Your task to perform on an android device: toggle notification dots Image 0: 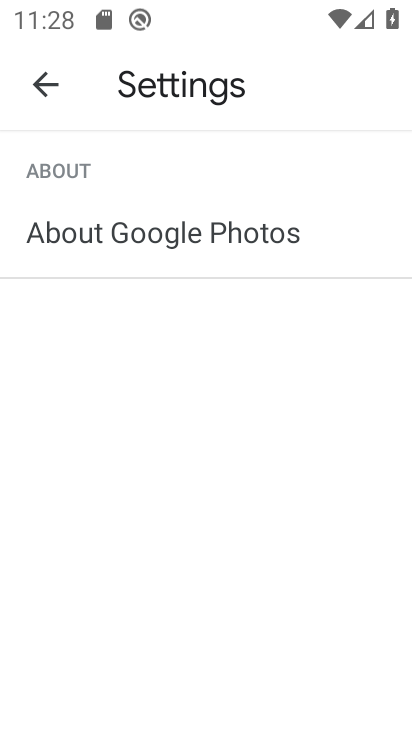
Step 0: press home button
Your task to perform on an android device: toggle notification dots Image 1: 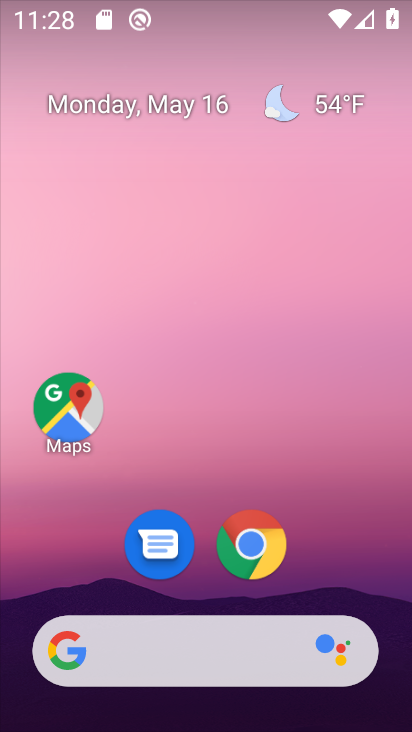
Step 1: drag from (392, 274) to (382, 197)
Your task to perform on an android device: toggle notification dots Image 2: 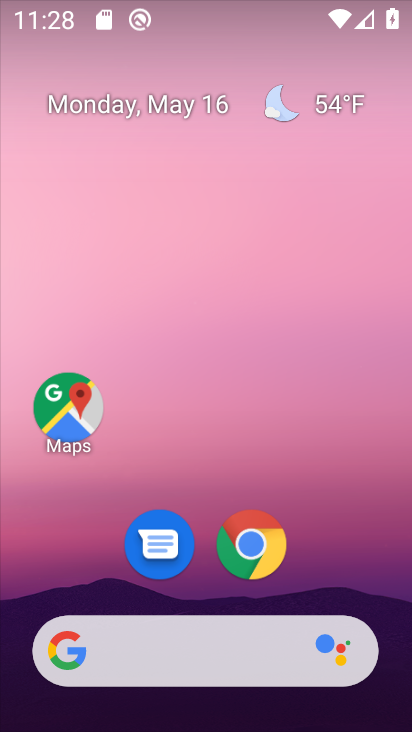
Step 2: drag from (404, 636) to (410, 186)
Your task to perform on an android device: toggle notification dots Image 3: 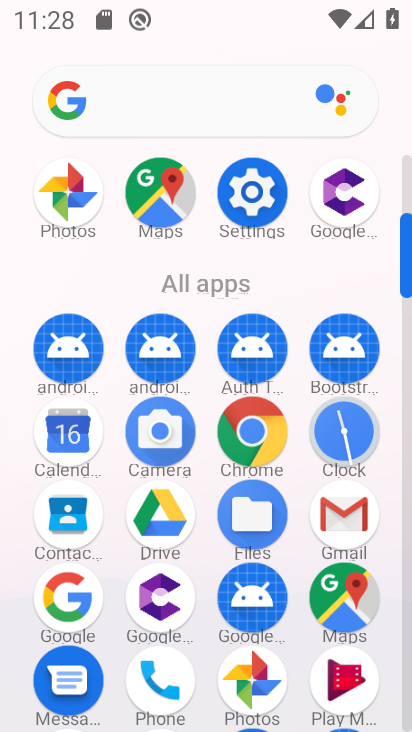
Step 3: click (241, 196)
Your task to perform on an android device: toggle notification dots Image 4: 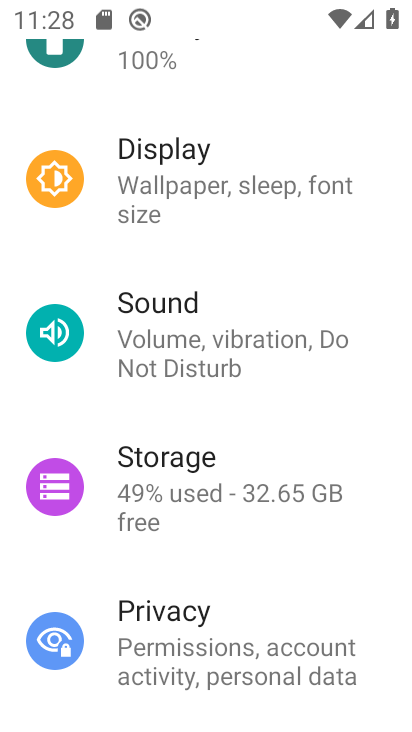
Step 4: drag from (318, 207) to (330, 445)
Your task to perform on an android device: toggle notification dots Image 5: 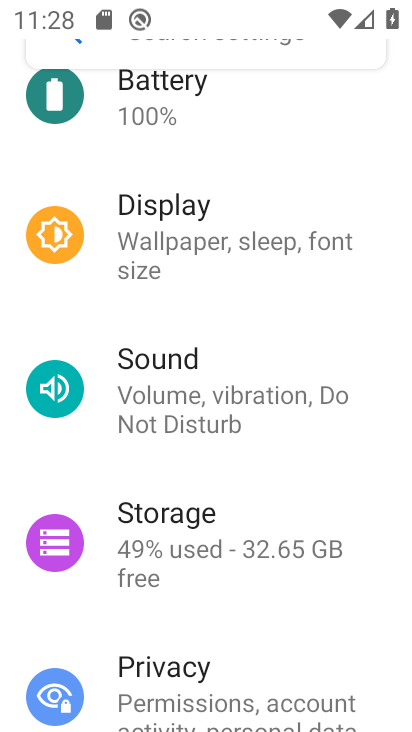
Step 5: drag from (248, 121) to (275, 425)
Your task to perform on an android device: toggle notification dots Image 6: 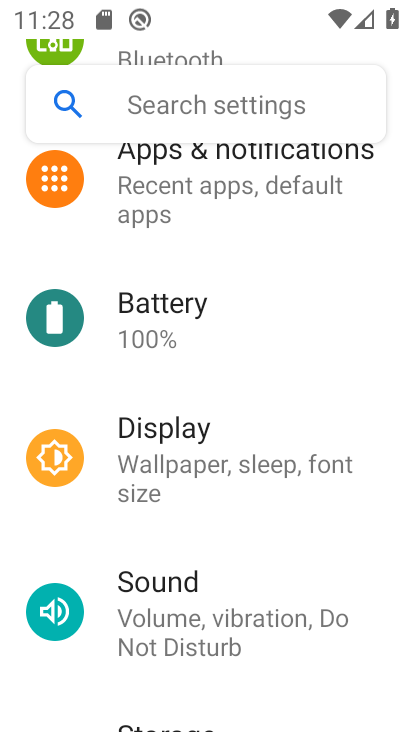
Step 6: click (159, 175)
Your task to perform on an android device: toggle notification dots Image 7: 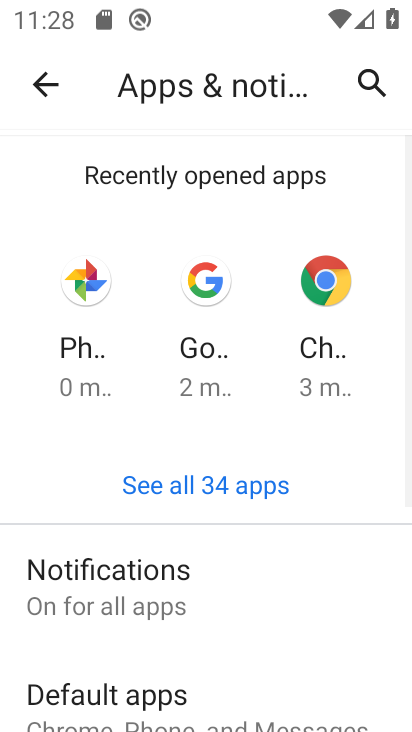
Step 7: click (100, 583)
Your task to perform on an android device: toggle notification dots Image 8: 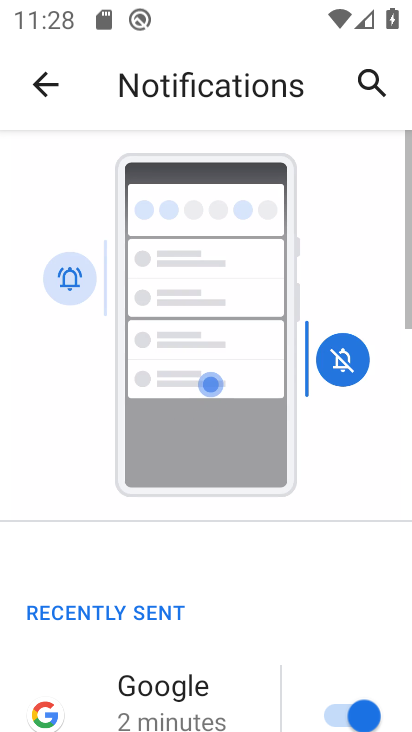
Step 8: drag from (305, 656) to (306, 382)
Your task to perform on an android device: toggle notification dots Image 9: 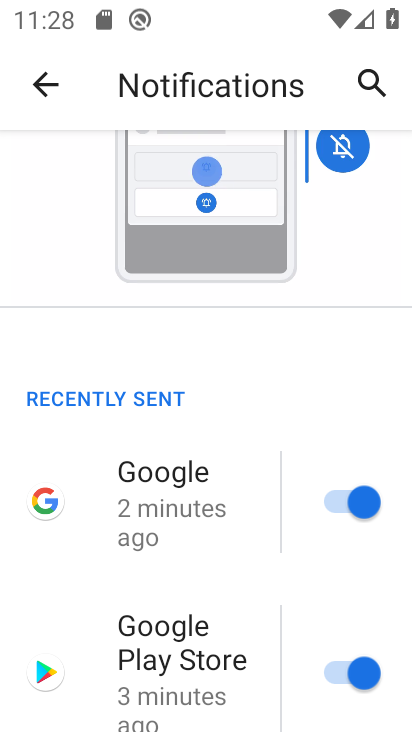
Step 9: click (275, 371)
Your task to perform on an android device: toggle notification dots Image 10: 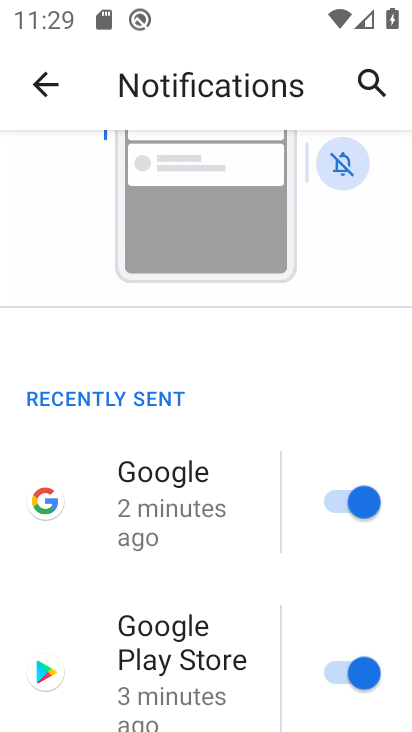
Step 10: drag from (268, 706) to (265, 454)
Your task to perform on an android device: toggle notification dots Image 11: 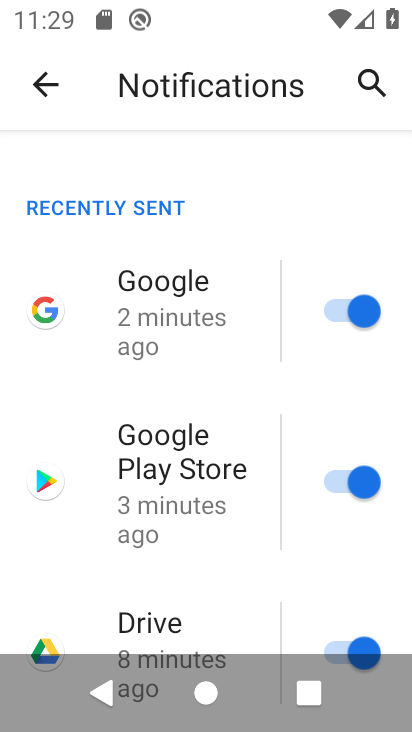
Step 11: drag from (280, 641) to (287, 380)
Your task to perform on an android device: toggle notification dots Image 12: 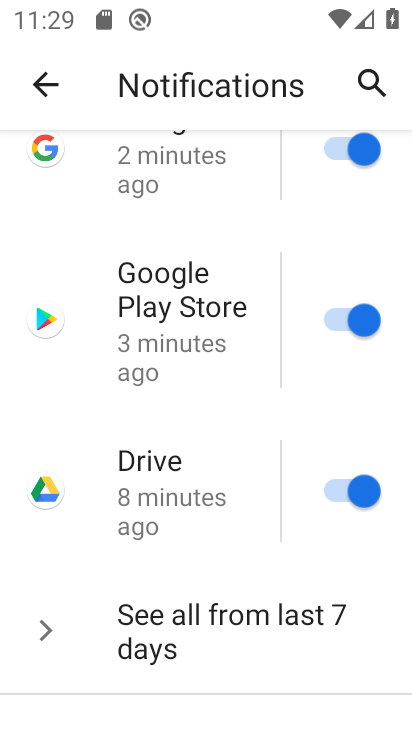
Step 12: drag from (260, 434) to (264, 349)
Your task to perform on an android device: toggle notification dots Image 13: 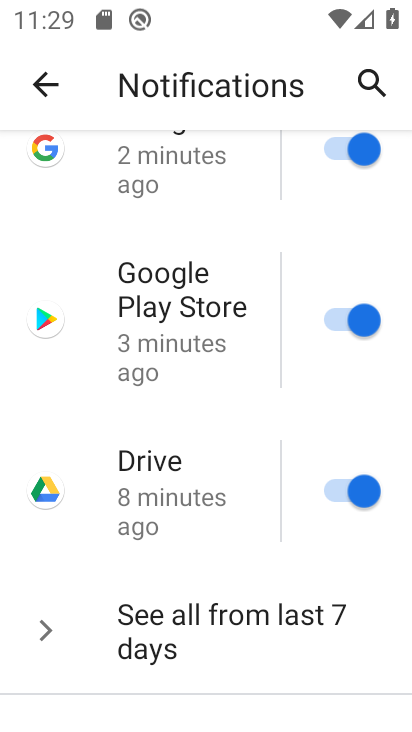
Step 13: drag from (287, 665) to (275, 409)
Your task to perform on an android device: toggle notification dots Image 14: 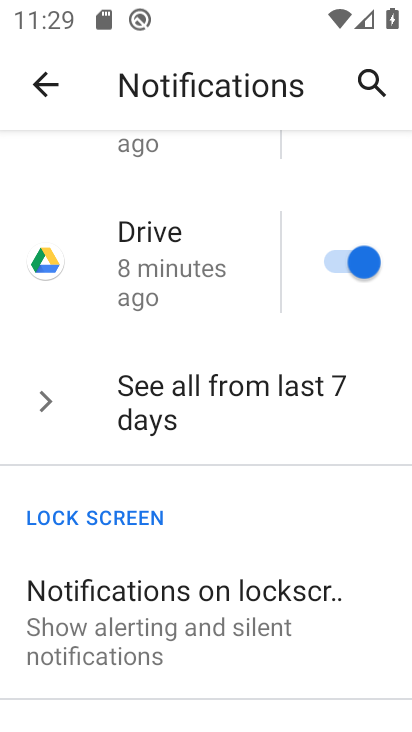
Step 14: drag from (262, 663) to (269, 427)
Your task to perform on an android device: toggle notification dots Image 15: 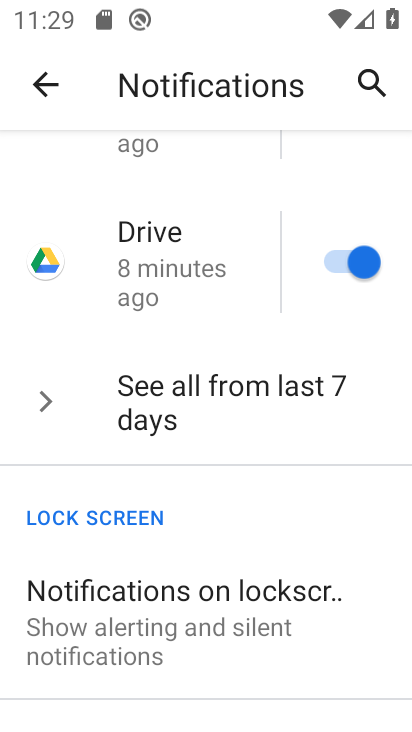
Step 15: drag from (242, 676) to (250, 476)
Your task to perform on an android device: toggle notification dots Image 16: 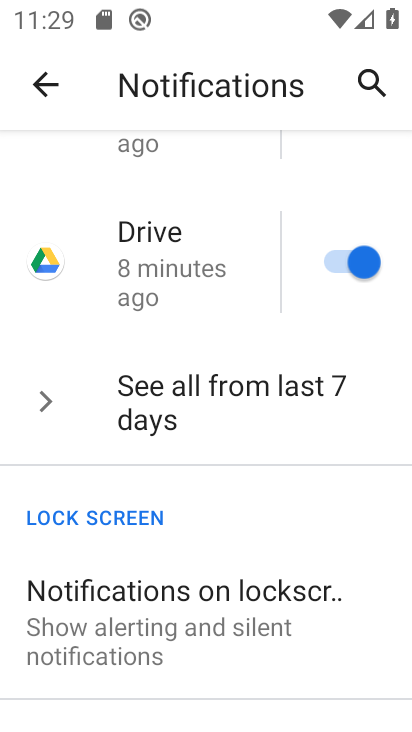
Step 16: click (311, 248)
Your task to perform on an android device: toggle notification dots Image 17: 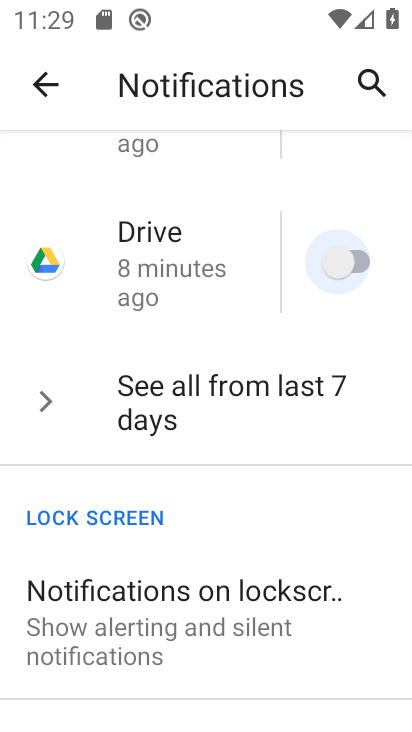
Step 17: click (298, 498)
Your task to perform on an android device: toggle notification dots Image 18: 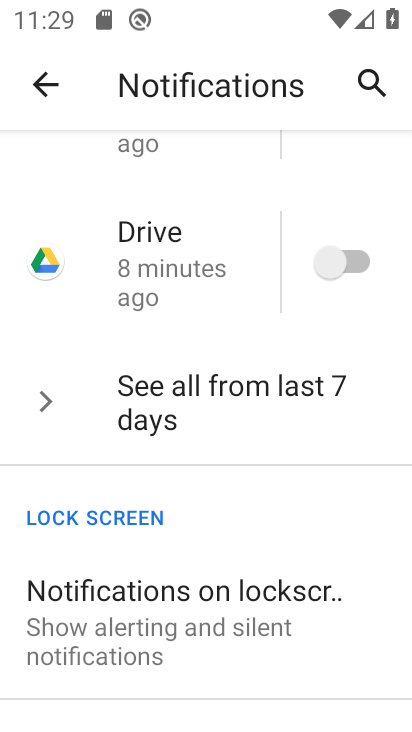
Step 18: drag from (293, 675) to (269, 167)
Your task to perform on an android device: toggle notification dots Image 19: 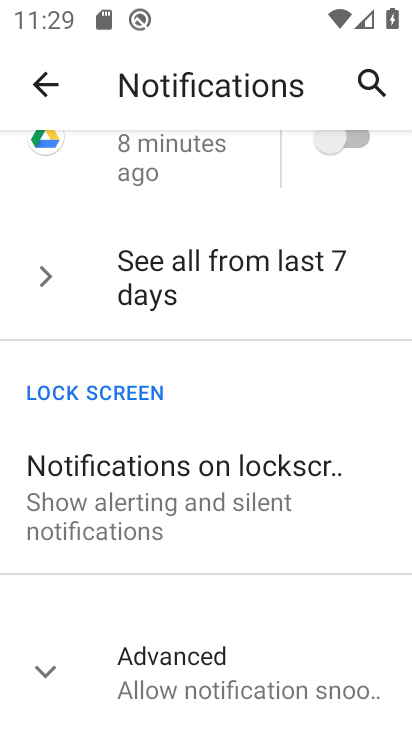
Step 19: click (46, 677)
Your task to perform on an android device: toggle notification dots Image 20: 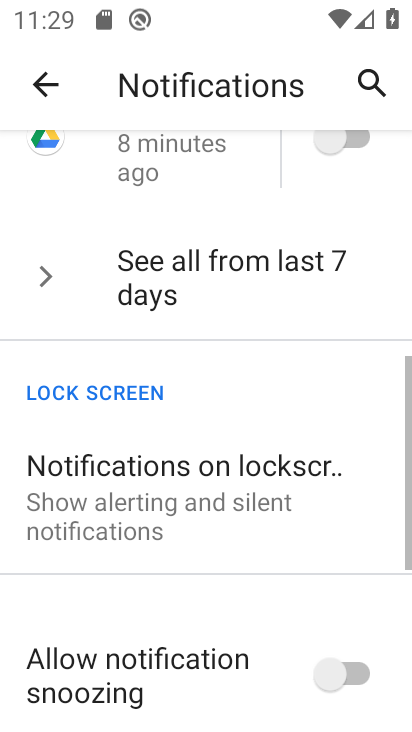
Step 20: drag from (319, 644) to (330, 309)
Your task to perform on an android device: toggle notification dots Image 21: 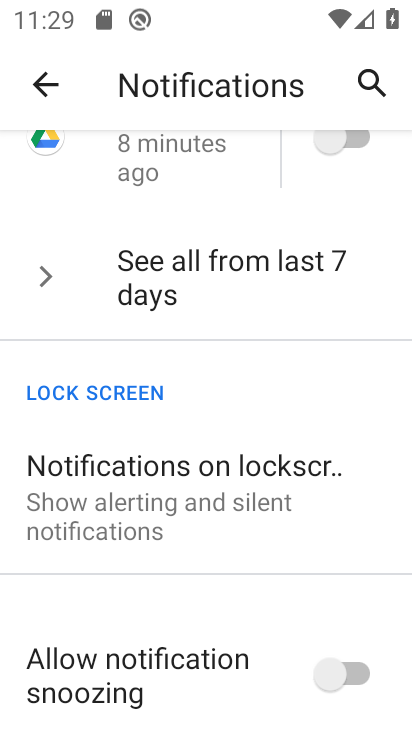
Step 21: drag from (312, 596) to (352, 371)
Your task to perform on an android device: toggle notification dots Image 22: 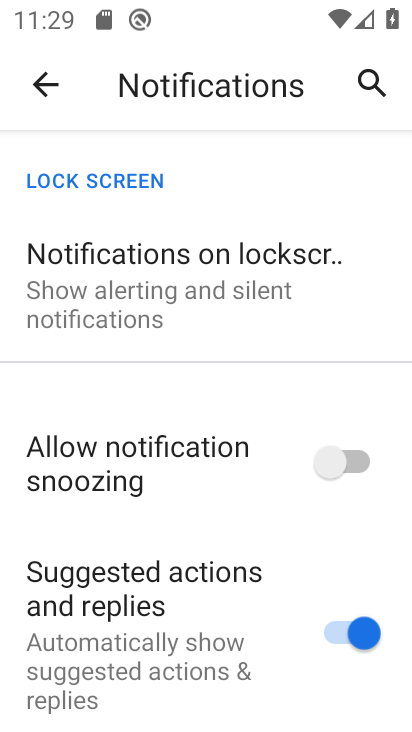
Step 22: drag from (272, 558) to (258, 319)
Your task to perform on an android device: toggle notification dots Image 23: 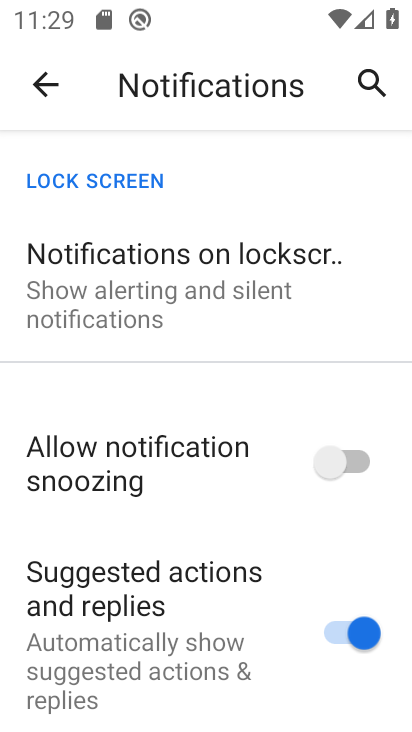
Step 23: drag from (260, 698) to (274, 350)
Your task to perform on an android device: toggle notification dots Image 24: 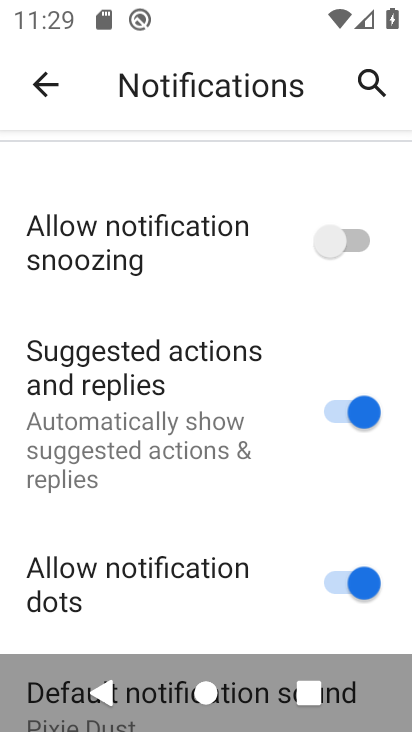
Step 24: drag from (248, 646) to (262, 391)
Your task to perform on an android device: toggle notification dots Image 25: 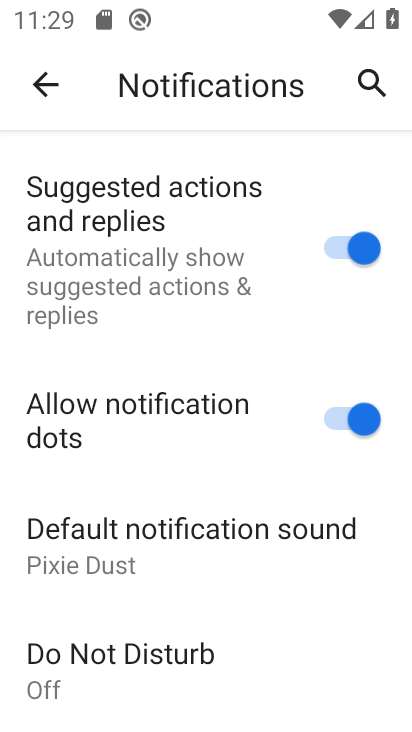
Step 25: click (340, 415)
Your task to perform on an android device: toggle notification dots Image 26: 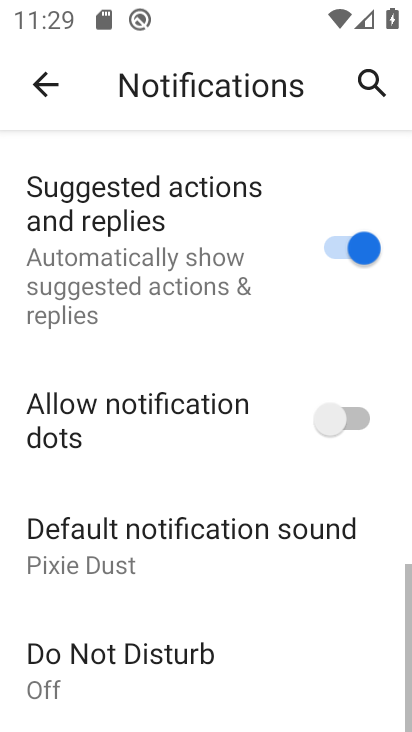
Step 26: task complete